Your task to perform on an android device: Is it going to rain tomorrow? Image 0: 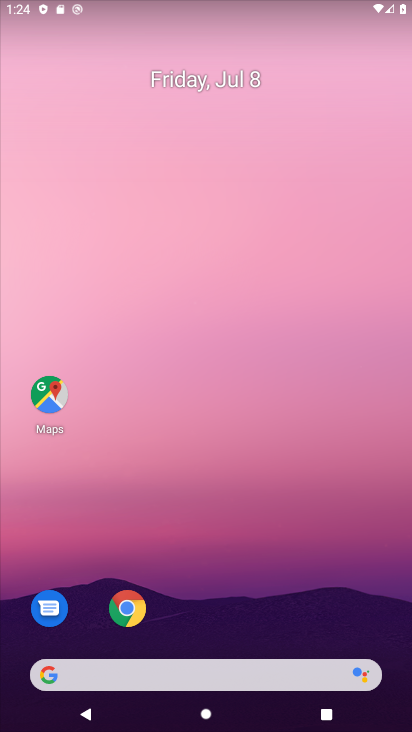
Step 0: click (181, 675)
Your task to perform on an android device: Is it going to rain tomorrow? Image 1: 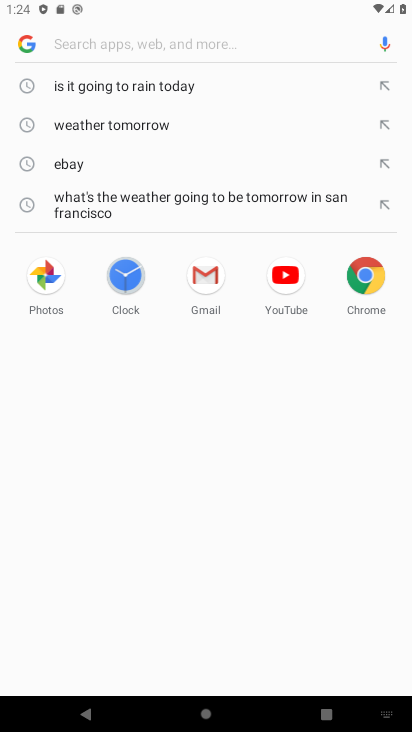
Step 1: type "Is it going to rain tomorrow?"
Your task to perform on an android device: Is it going to rain tomorrow? Image 2: 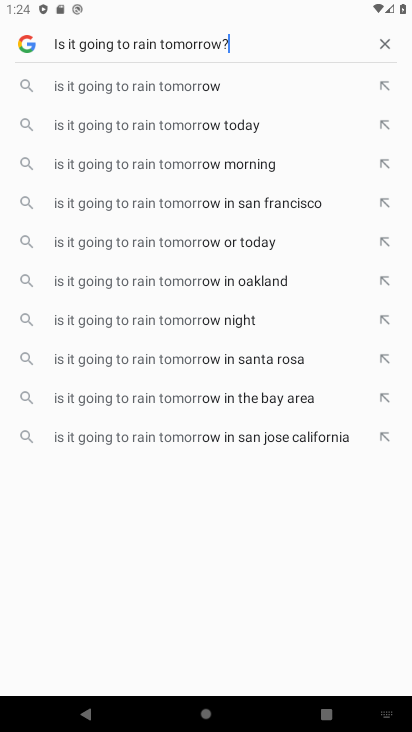
Step 2: type ""
Your task to perform on an android device: Is it going to rain tomorrow? Image 3: 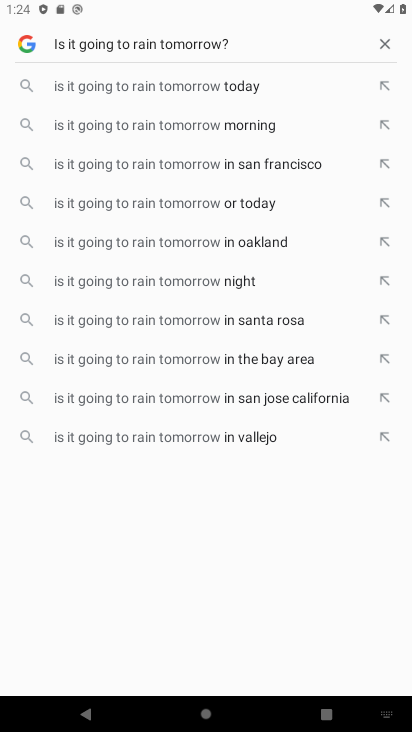
Step 3: press enter
Your task to perform on an android device: Is it going to rain tomorrow? Image 4: 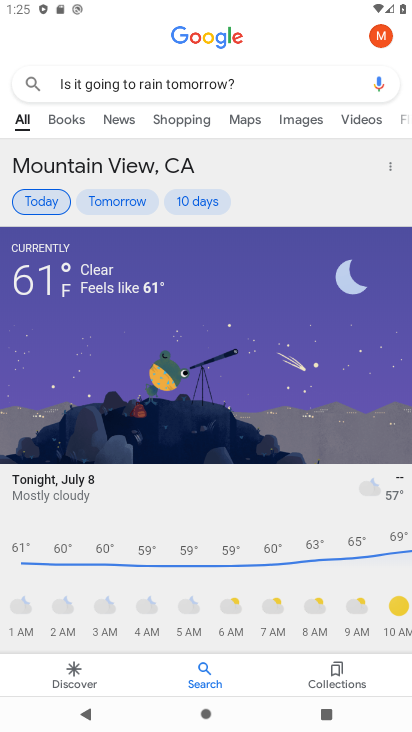
Step 4: task complete